Your task to perform on an android device: show emergency info Image 0: 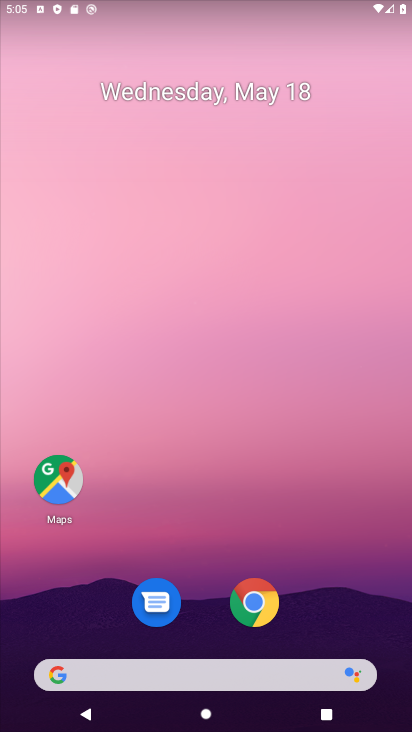
Step 0: drag from (222, 661) to (273, 33)
Your task to perform on an android device: show emergency info Image 1: 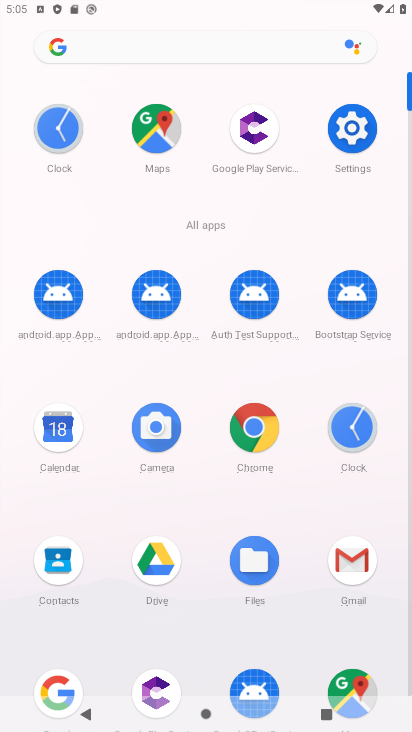
Step 1: click (350, 126)
Your task to perform on an android device: show emergency info Image 2: 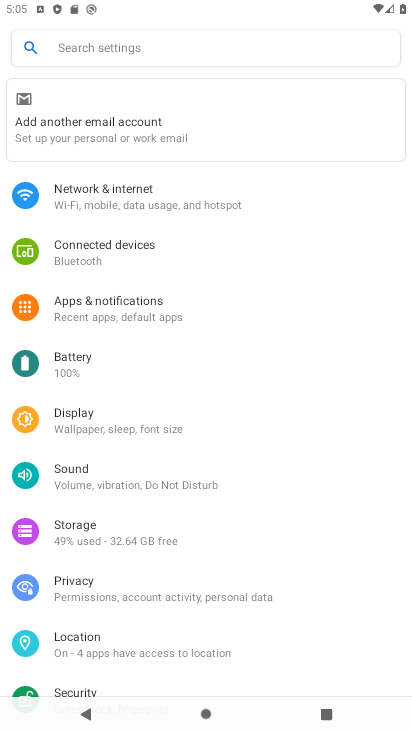
Step 2: drag from (206, 635) to (246, 116)
Your task to perform on an android device: show emergency info Image 3: 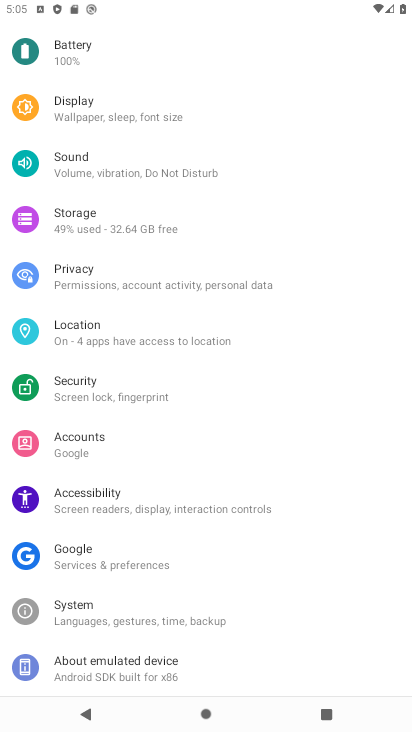
Step 3: click (155, 666)
Your task to perform on an android device: show emergency info Image 4: 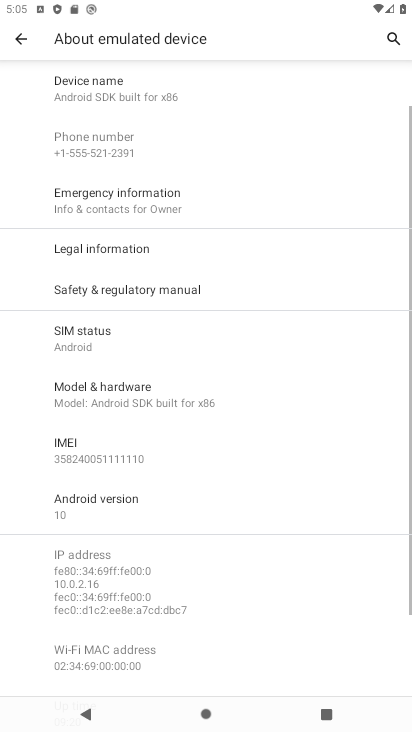
Step 4: click (138, 209)
Your task to perform on an android device: show emergency info Image 5: 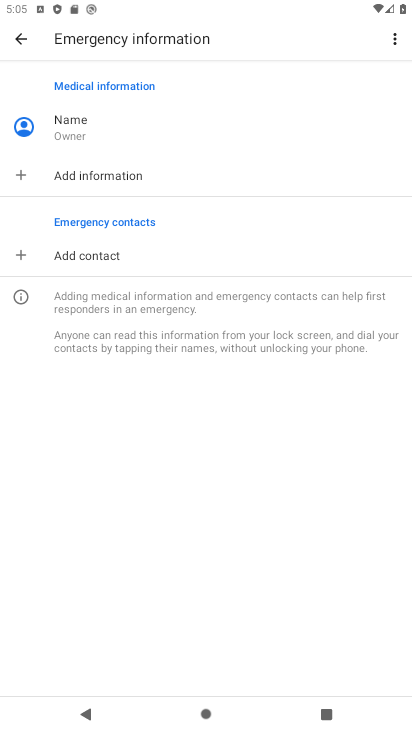
Step 5: task complete